Your task to perform on an android device: allow cookies in the chrome app Image 0: 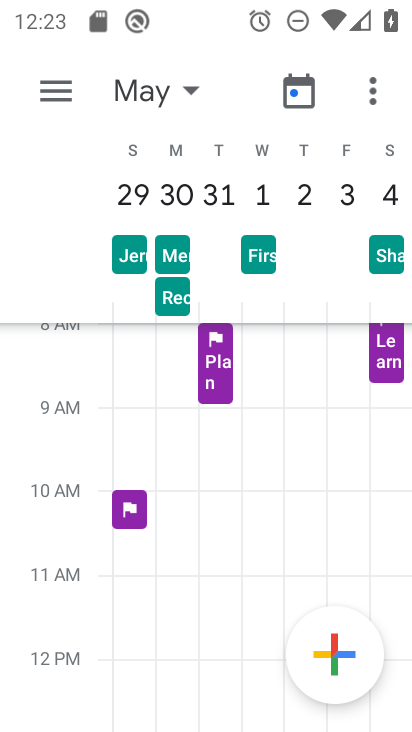
Step 0: press home button
Your task to perform on an android device: allow cookies in the chrome app Image 1: 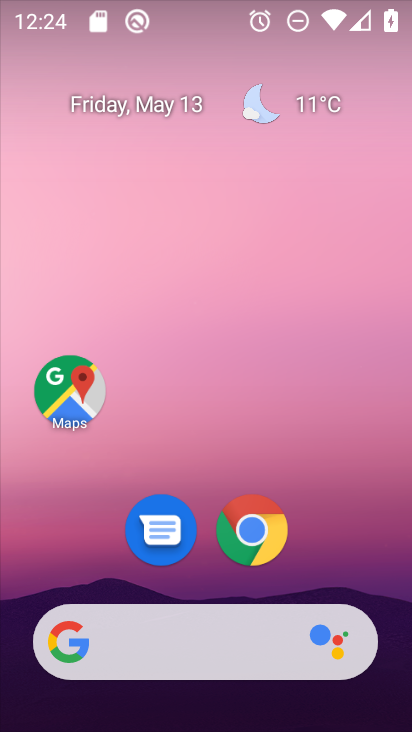
Step 1: drag from (186, 644) to (296, 167)
Your task to perform on an android device: allow cookies in the chrome app Image 2: 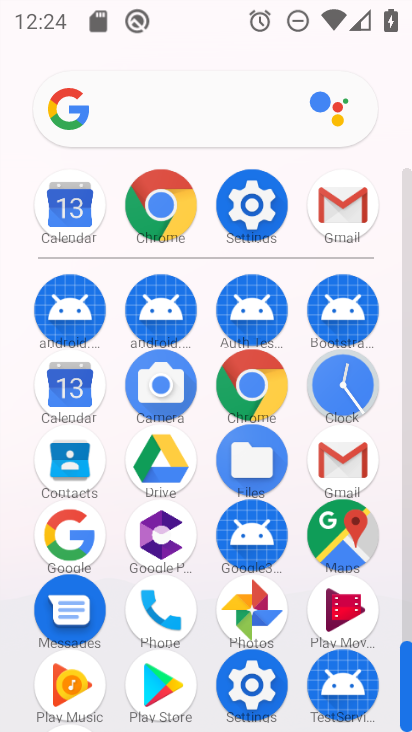
Step 2: click (167, 215)
Your task to perform on an android device: allow cookies in the chrome app Image 3: 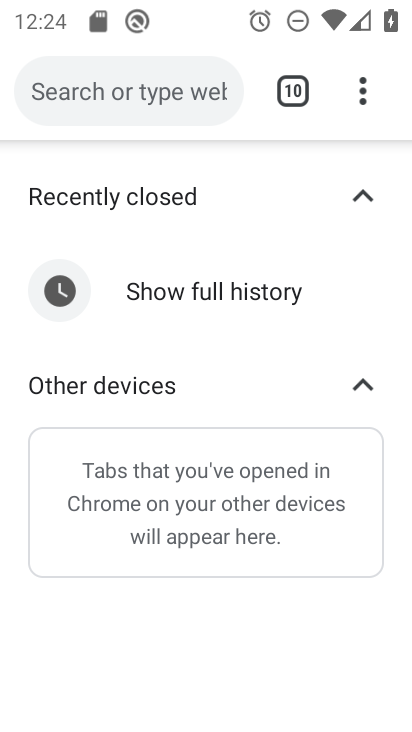
Step 3: drag from (362, 95) to (195, 578)
Your task to perform on an android device: allow cookies in the chrome app Image 4: 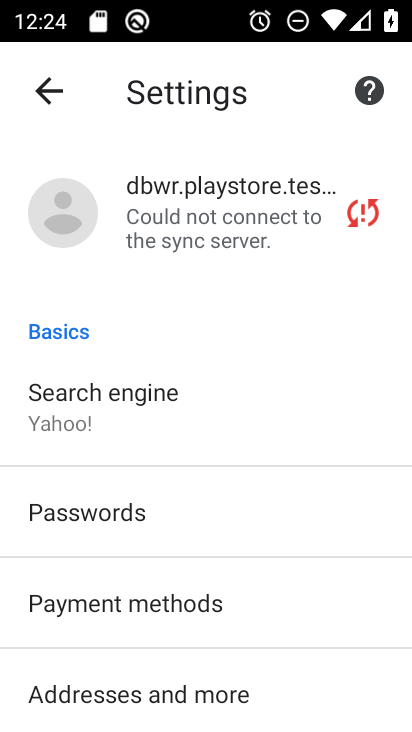
Step 4: drag from (162, 632) to (315, 141)
Your task to perform on an android device: allow cookies in the chrome app Image 5: 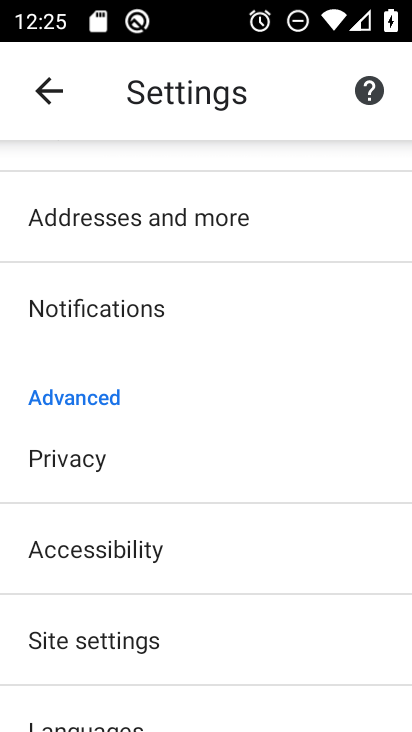
Step 5: click (148, 639)
Your task to perform on an android device: allow cookies in the chrome app Image 6: 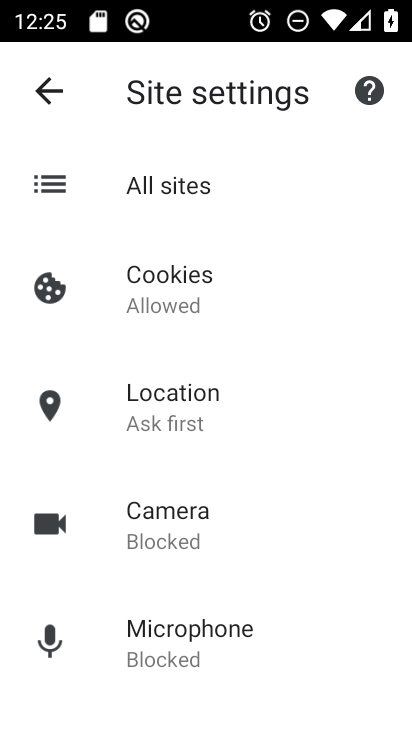
Step 6: click (194, 298)
Your task to perform on an android device: allow cookies in the chrome app Image 7: 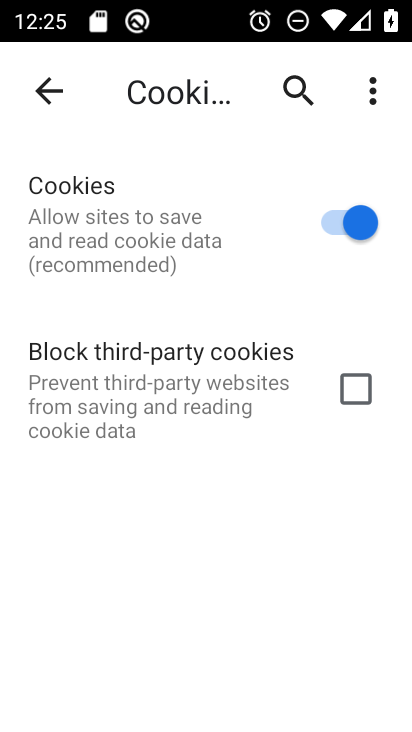
Step 7: task complete